Your task to perform on an android device: empty trash in google photos Image 0: 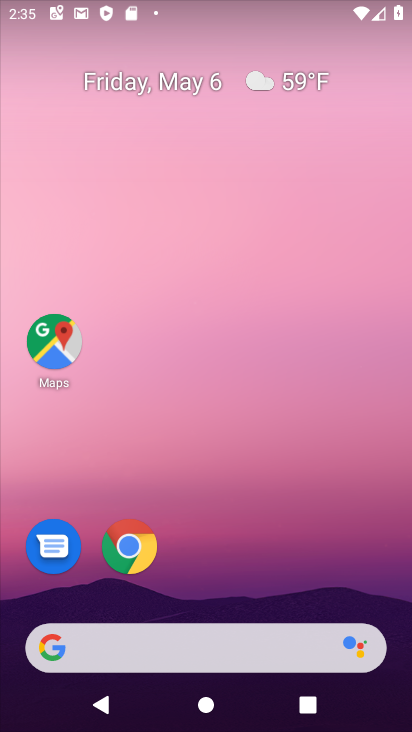
Step 0: drag from (294, 547) to (285, 37)
Your task to perform on an android device: empty trash in google photos Image 1: 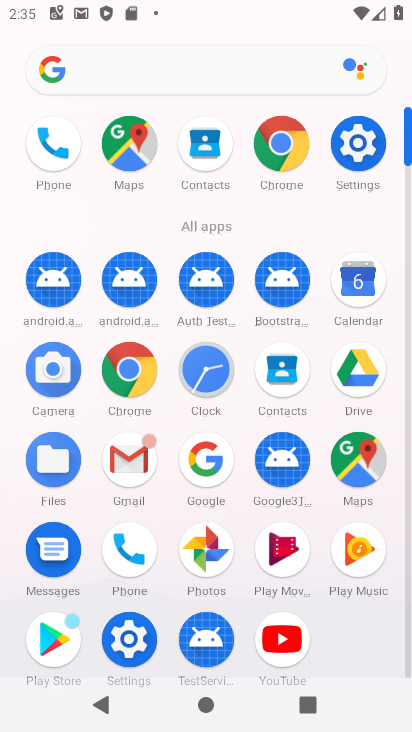
Step 1: click (207, 549)
Your task to perform on an android device: empty trash in google photos Image 2: 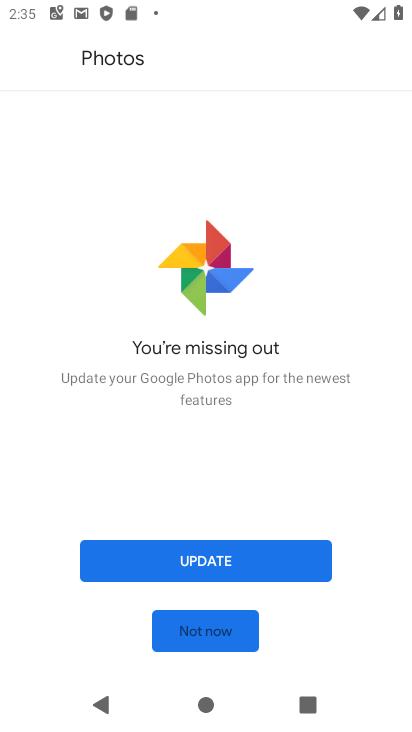
Step 2: click (225, 564)
Your task to perform on an android device: empty trash in google photos Image 3: 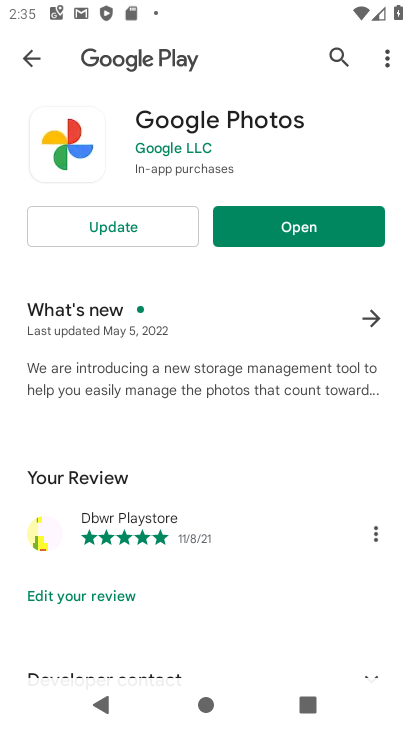
Step 3: click (160, 227)
Your task to perform on an android device: empty trash in google photos Image 4: 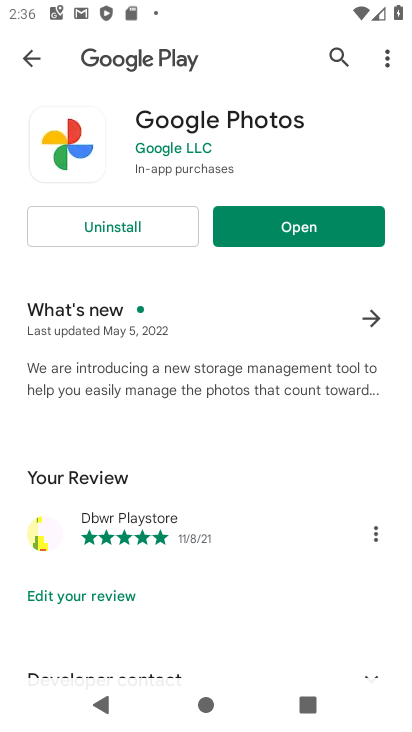
Step 4: click (306, 234)
Your task to perform on an android device: empty trash in google photos Image 5: 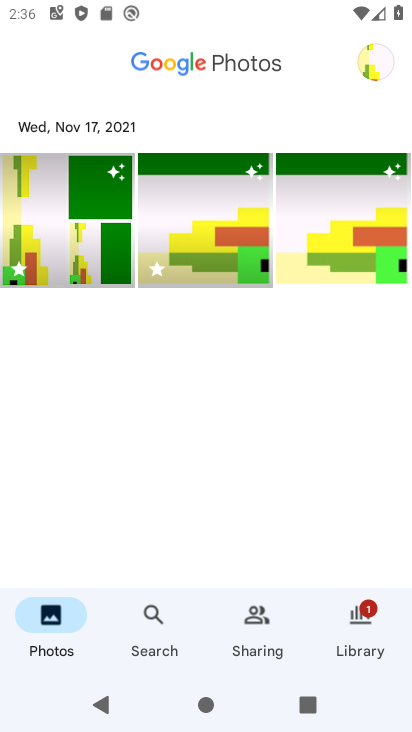
Step 5: click (360, 632)
Your task to perform on an android device: empty trash in google photos Image 6: 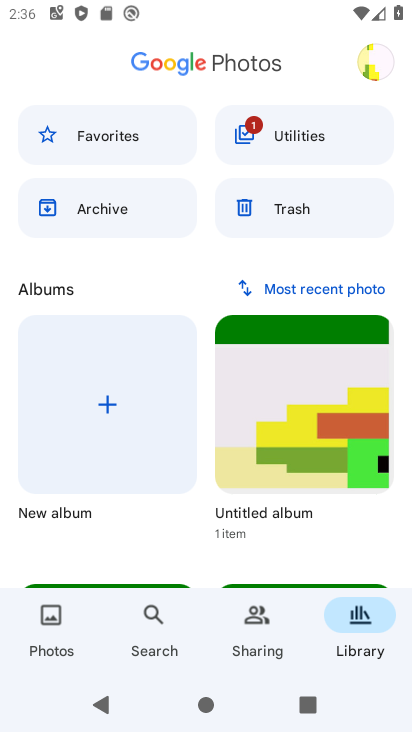
Step 6: click (277, 201)
Your task to perform on an android device: empty trash in google photos Image 7: 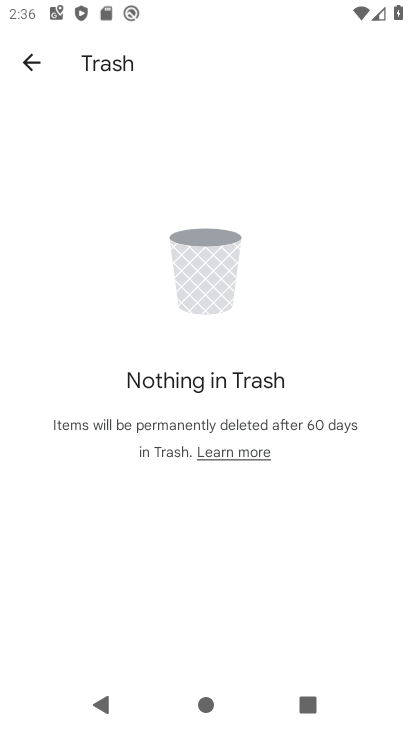
Step 7: task complete